Your task to perform on an android device: check battery use Image 0: 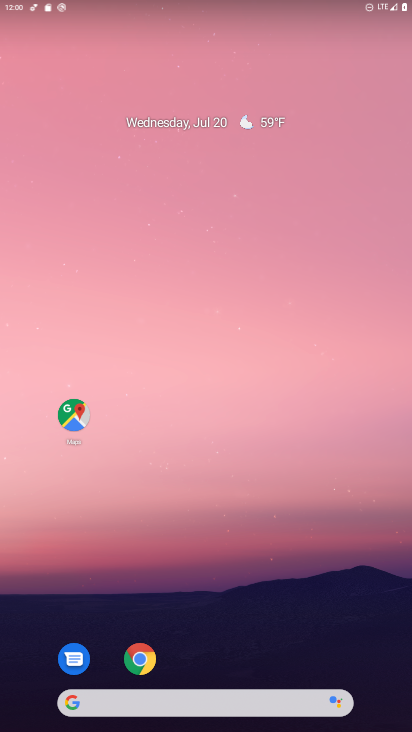
Step 0: drag from (241, 675) to (216, 212)
Your task to perform on an android device: check battery use Image 1: 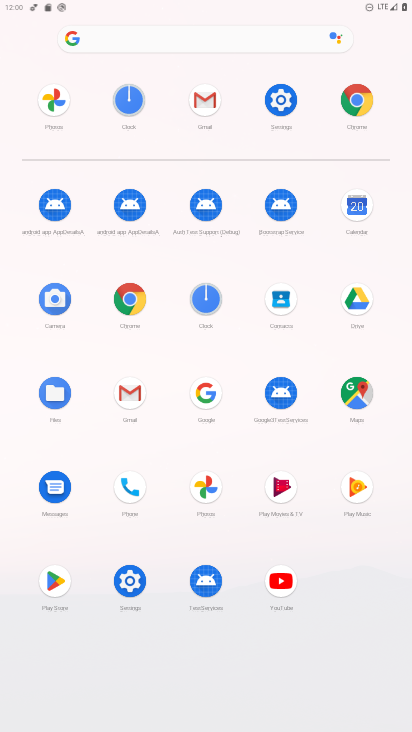
Step 1: click (276, 104)
Your task to perform on an android device: check battery use Image 2: 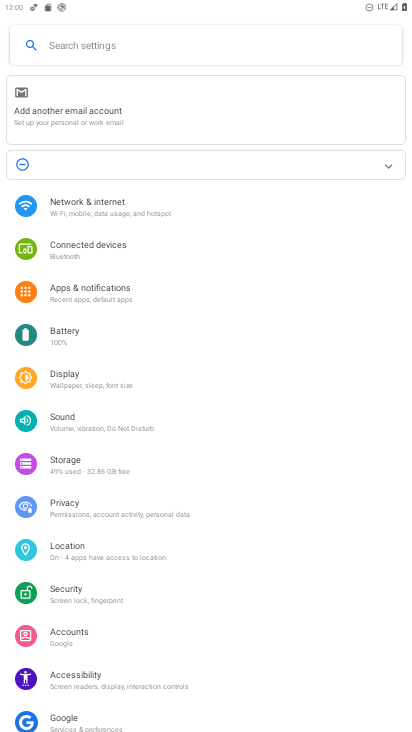
Step 2: click (69, 336)
Your task to perform on an android device: check battery use Image 3: 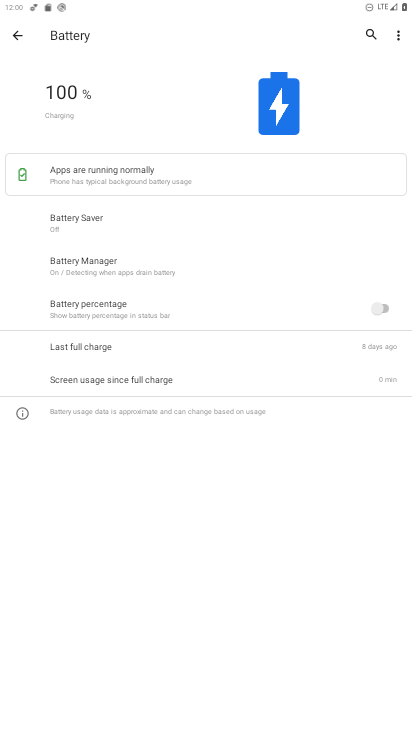
Step 3: click (396, 33)
Your task to perform on an android device: check battery use Image 4: 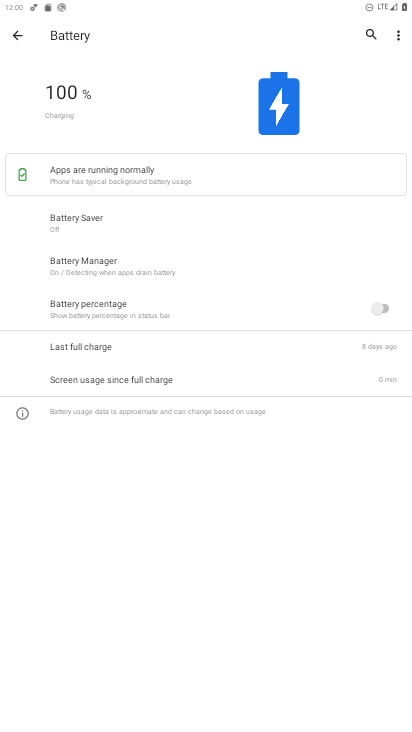
Step 4: click (393, 39)
Your task to perform on an android device: check battery use Image 5: 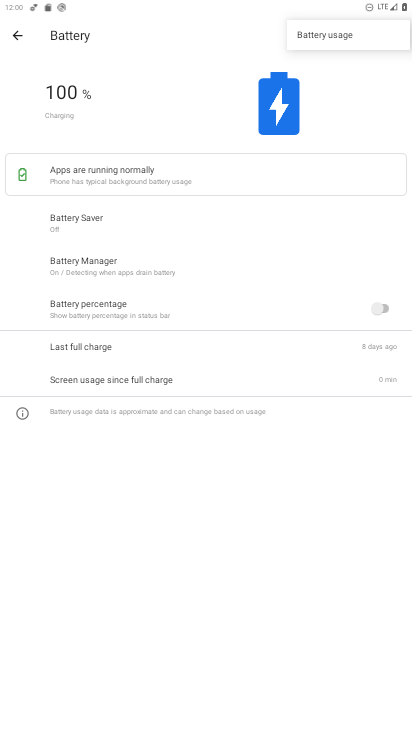
Step 5: click (366, 31)
Your task to perform on an android device: check battery use Image 6: 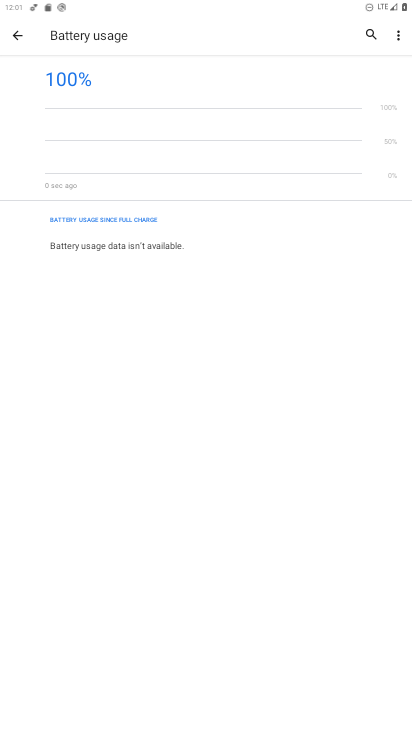
Step 6: task complete